Your task to perform on an android device: toggle location history Image 0: 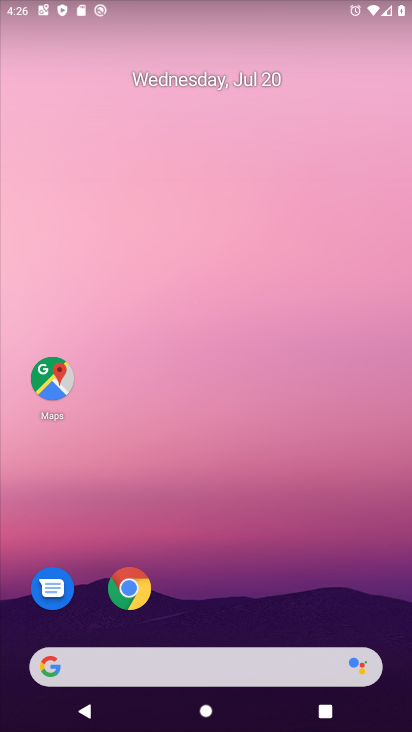
Step 0: drag from (304, 597) to (297, 72)
Your task to perform on an android device: toggle location history Image 1: 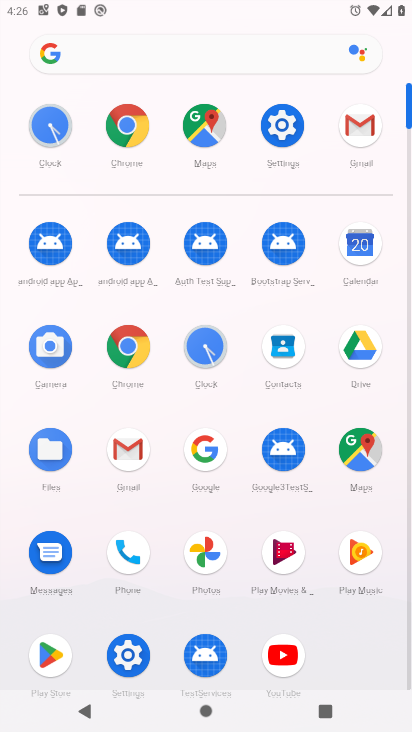
Step 1: click (278, 125)
Your task to perform on an android device: toggle location history Image 2: 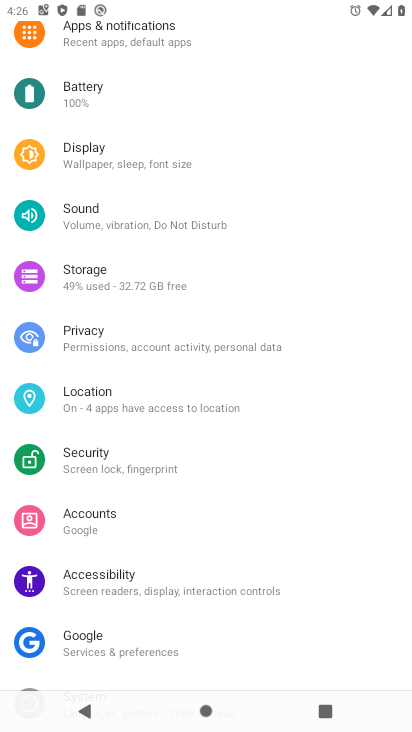
Step 2: click (112, 402)
Your task to perform on an android device: toggle location history Image 3: 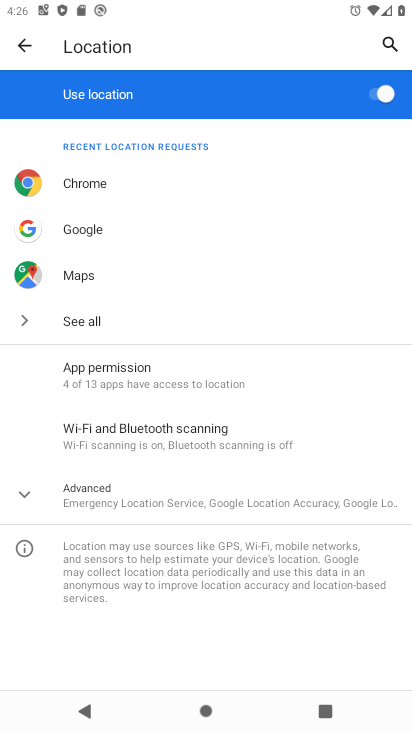
Step 3: click (124, 491)
Your task to perform on an android device: toggle location history Image 4: 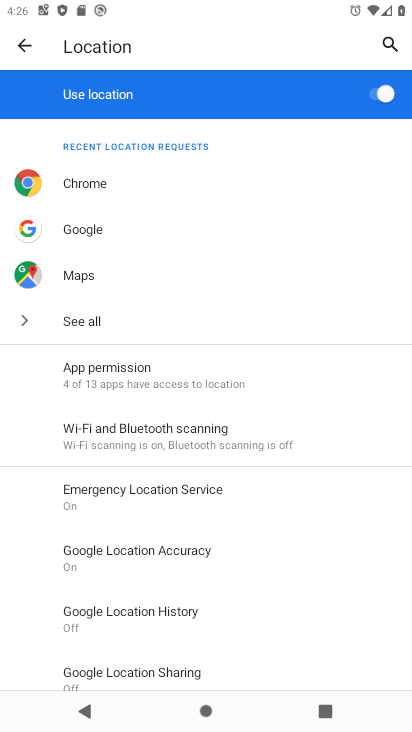
Step 4: click (167, 619)
Your task to perform on an android device: toggle location history Image 5: 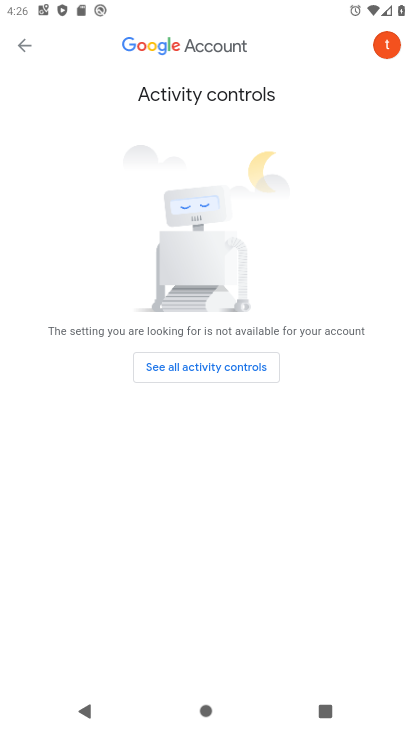
Step 5: task complete